Your task to perform on an android device: turn off location history Image 0: 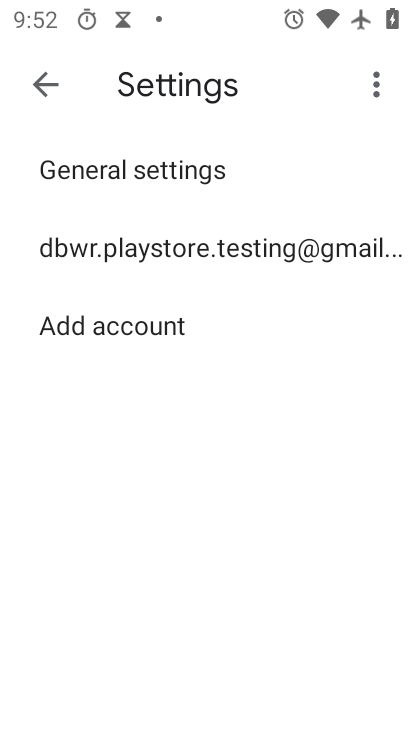
Step 0: press home button
Your task to perform on an android device: turn off location history Image 1: 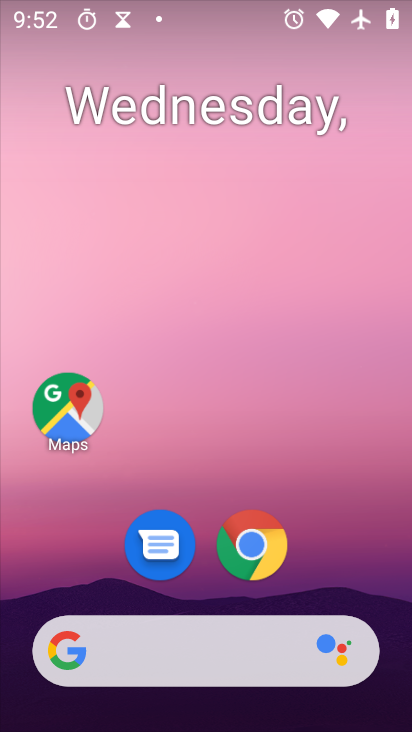
Step 1: click (65, 423)
Your task to perform on an android device: turn off location history Image 2: 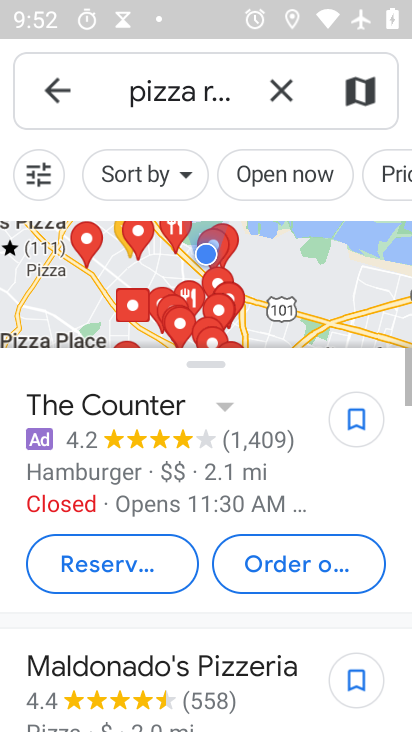
Step 2: click (54, 86)
Your task to perform on an android device: turn off location history Image 3: 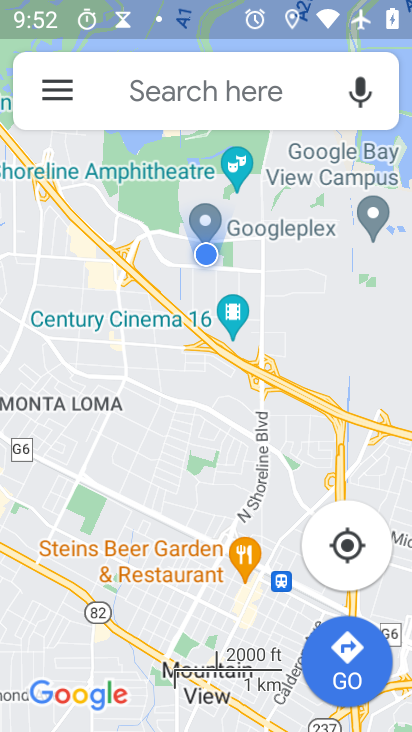
Step 3: click (54, 86)
Your task to perform on an android device: turn off location history Image 4: 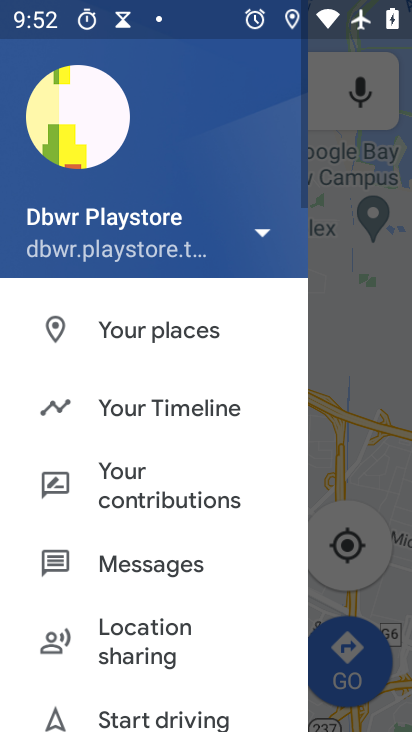
Step 4: click (158, 408)
Your task to perform on an android device: turn off location history Image 5: 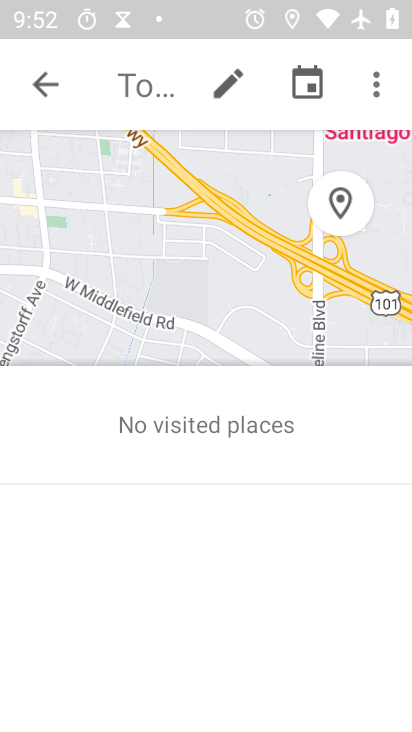
Step 5: click (372, 90)
Your task to perform on an android device: turn off location history Image 6: 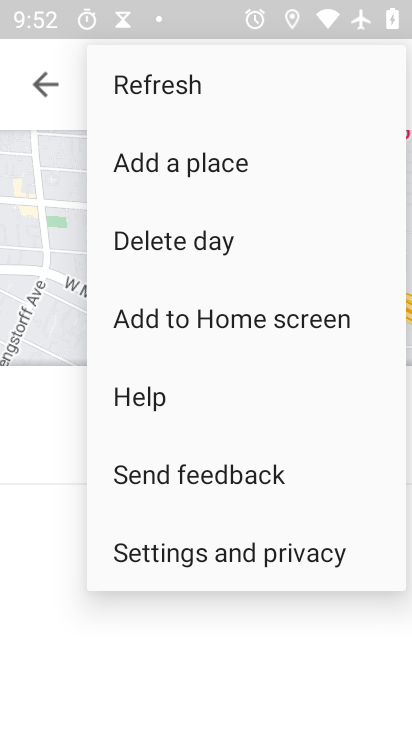
Step 6: click (232, 548)
Your task to perform on an android device: turn off location history Image 7: 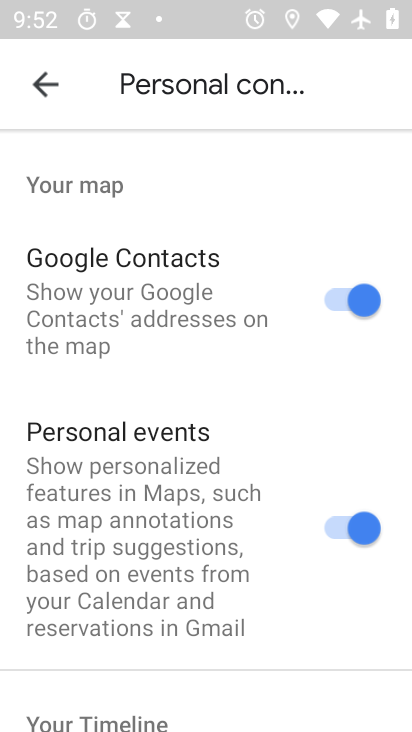
Step 7: drag from (218, 653) to (362, 1)
Your task to perform on an android device: turn off location history Image 8: 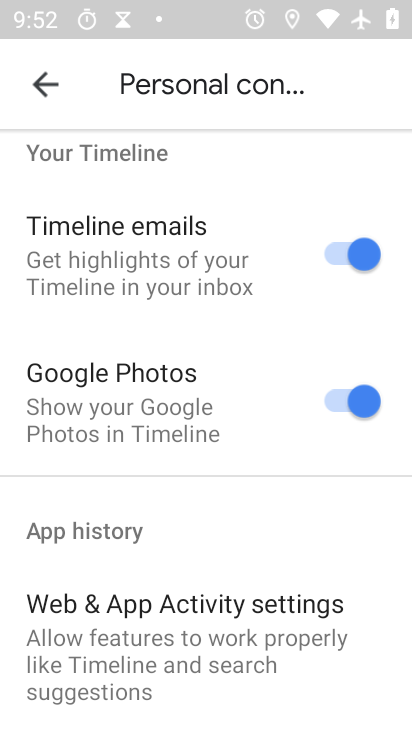
Step 8: drag from (222, 576) to (309, 69)
Your task to perform on an android device: turn off location history Image 9: 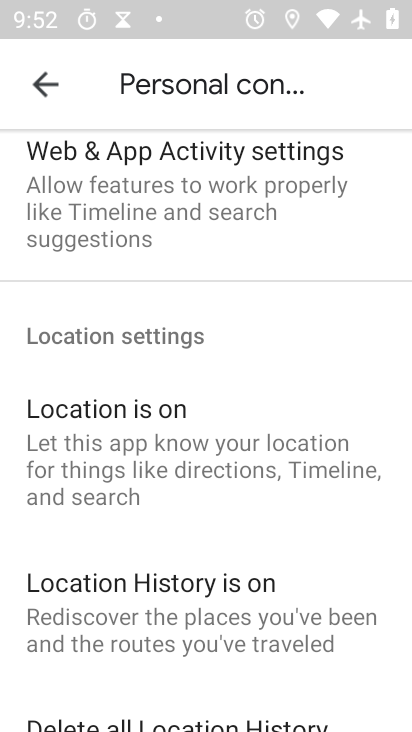
Step 9: click (236, 620)
Your task to perform on an android device: turn off location history Image 10: 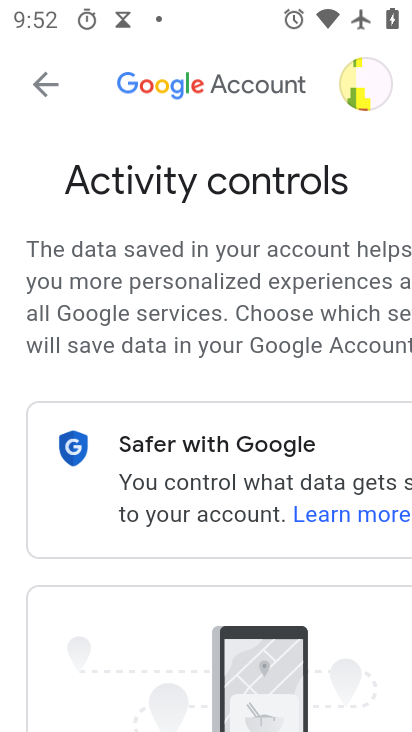
Step 10: task complete